Your task to perform on an android device: Go to settings Image 0: 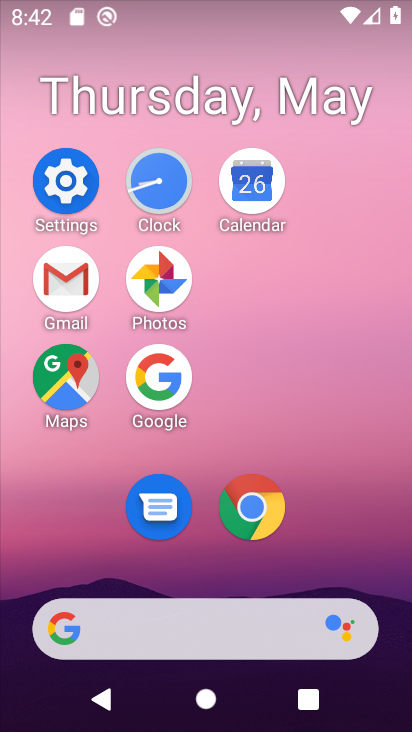
Step 0: click (37, 167)
Your task to perform on an android device: Go to settings Image 1: 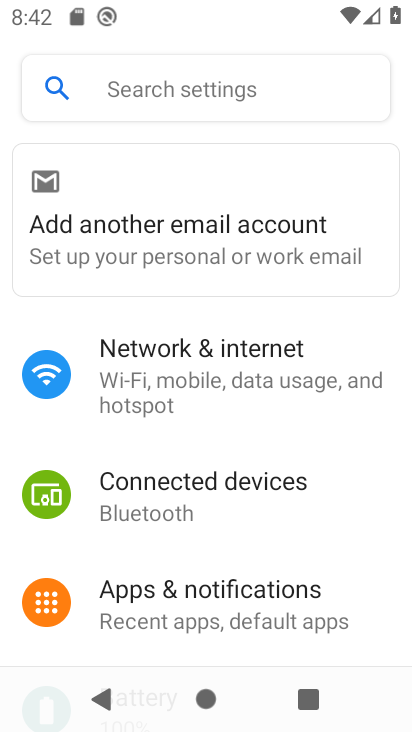
Step 1: task complete